Your task to perform on an android device: Open network settings Image 0: 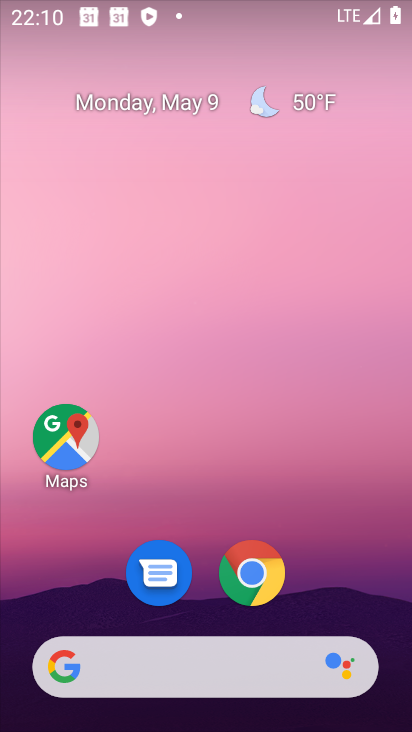
Step 0: drag from (317, 536) to (290, 146)
Your task to perform on an android device: Open network settings Image 1: 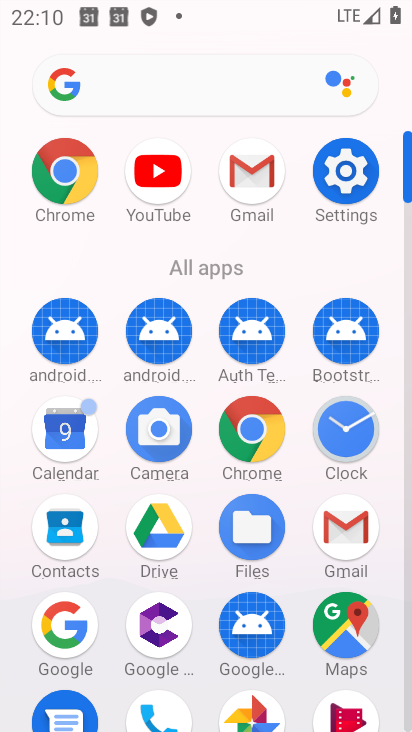
Step 1: click (348, 181)
Your task to perform on an android device: Open network settings Image 2: 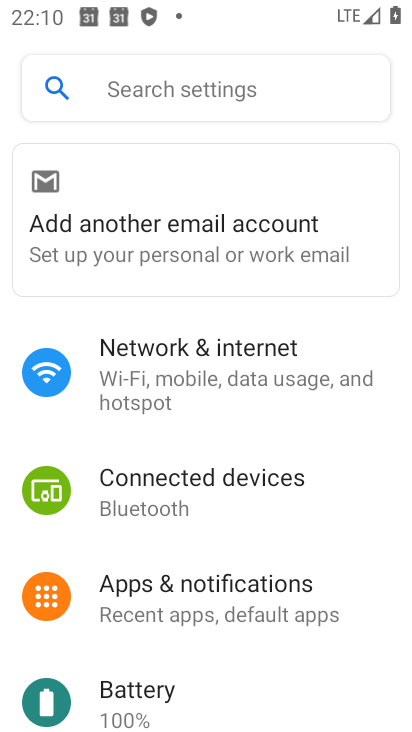
Step 2: click (228, 349)
Your task to perform on an android device: Open network settings Image 3: 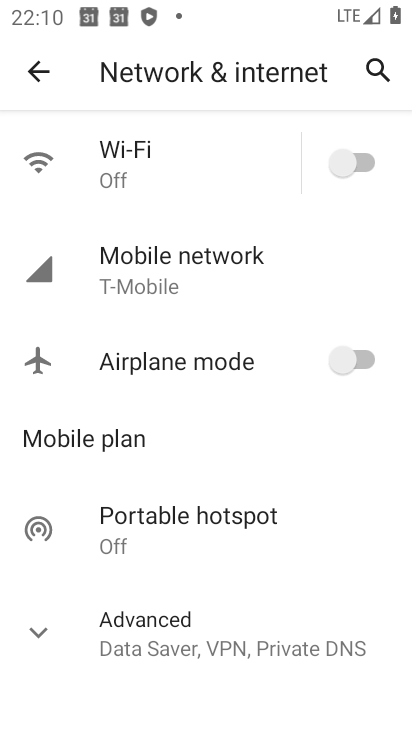
Step 3: task complete